Your task to perform on an android device: Go to Yahoo.com Image 0: 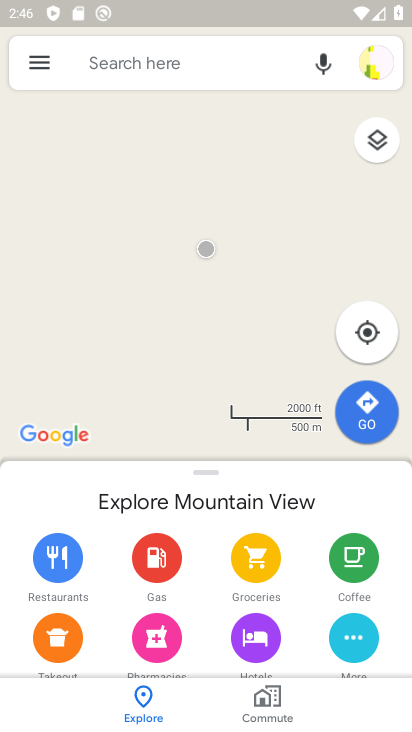
Step 0: press home button
Your task to perform on an android device: Go to Yahoo.com Image 1: 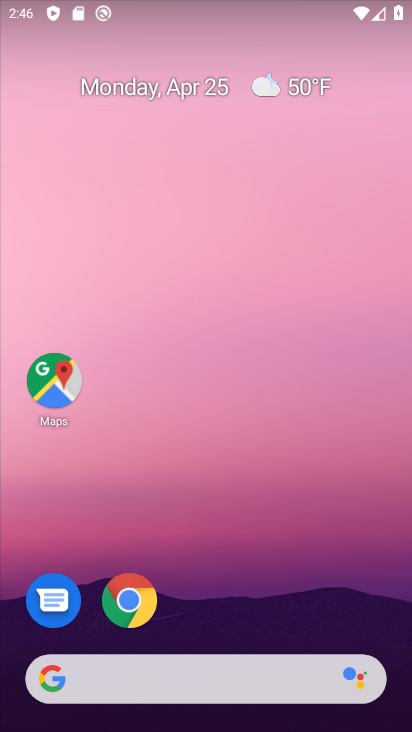
Step 1: drag from (323, 565) to (325, 175)
Your task to perform on an android device: Go to Yahoo.com Image 2: 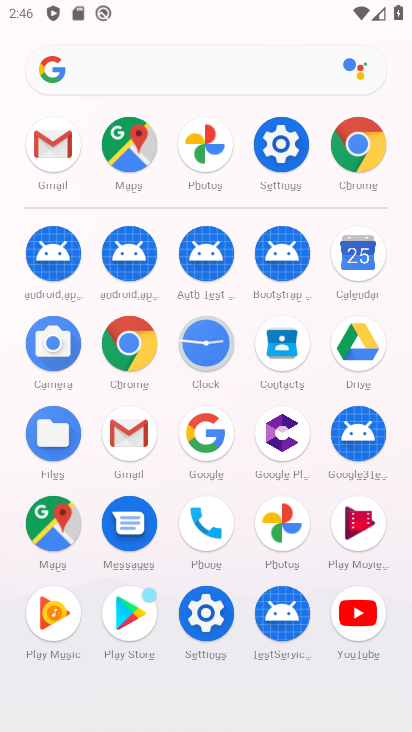
Step 2: click (135, 354)
Your task to perform on an android device: Go to Yahoo.com Image 3: 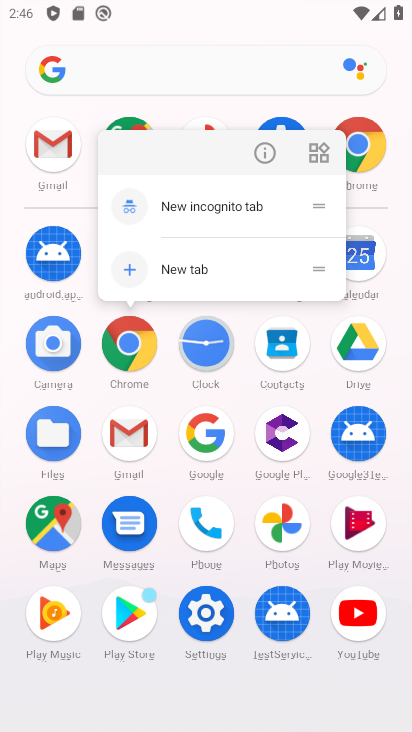
Step 3: click (130, 357)
Your task to perform on an android device: Go to Yahoo.com Image 4: 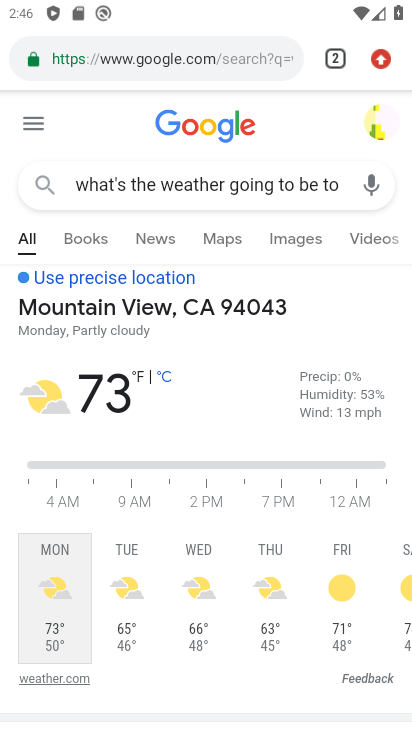
Step 4: click (187, 61)
Your task to perform on an android device: Go to Yahoo.com Image 5: 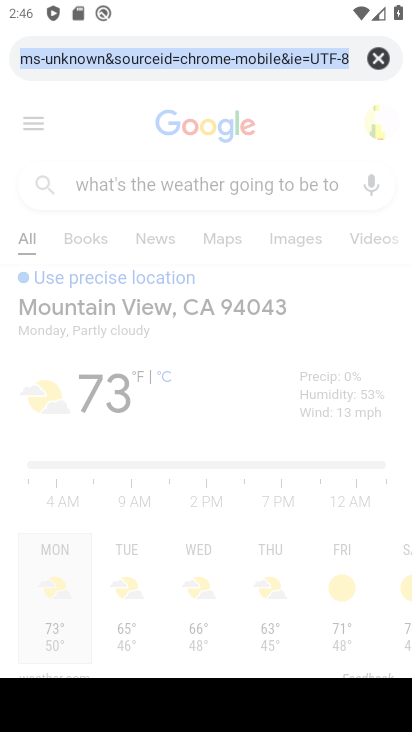
Step 5: click (377, 60)
Your task to perform on an android device: Go to Yahoo.com Image 6: 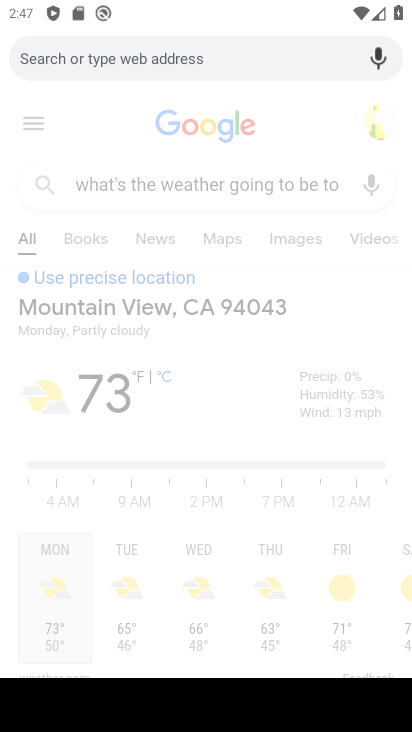
Step 6: type "yahoo.com"
Your task to perform on an android device: Go to Yahoo.com Image 7: 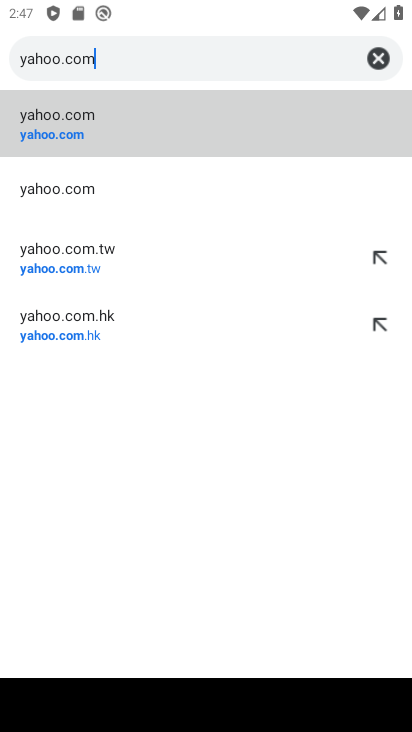
Step 7: click (57, 125)
Your task to perform on an android device: Go to Yahoo.com Image 8: 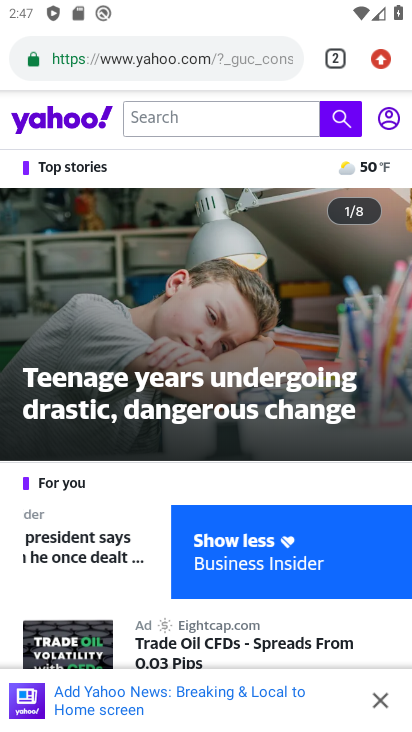
Step 8: task complete